Your task to perform on an android device: Go to battery settings Image 0: 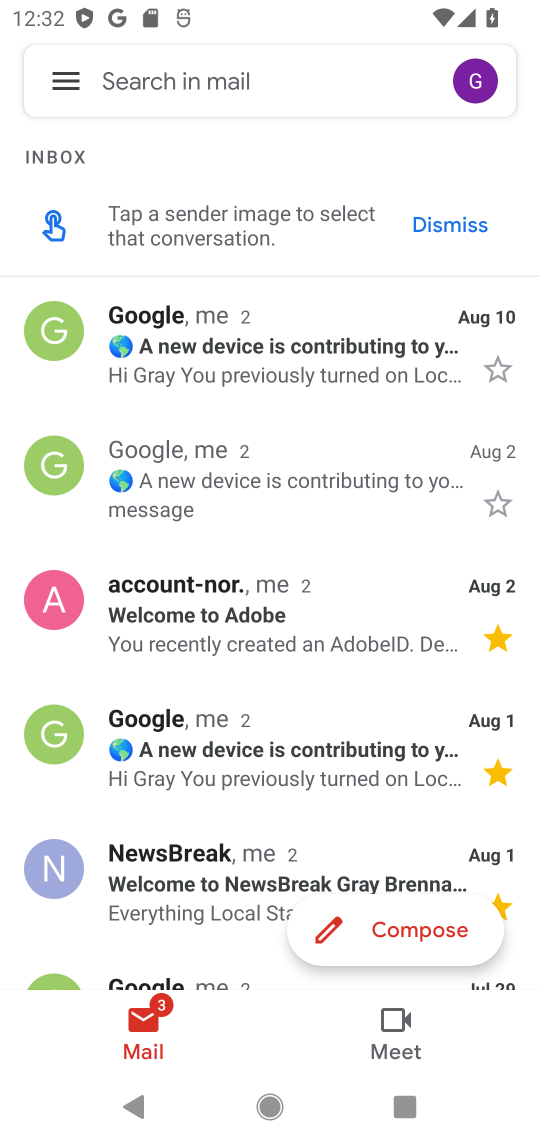
Step 0: press home button
Your task to perform on an android device: Go to battery settings Image 1: 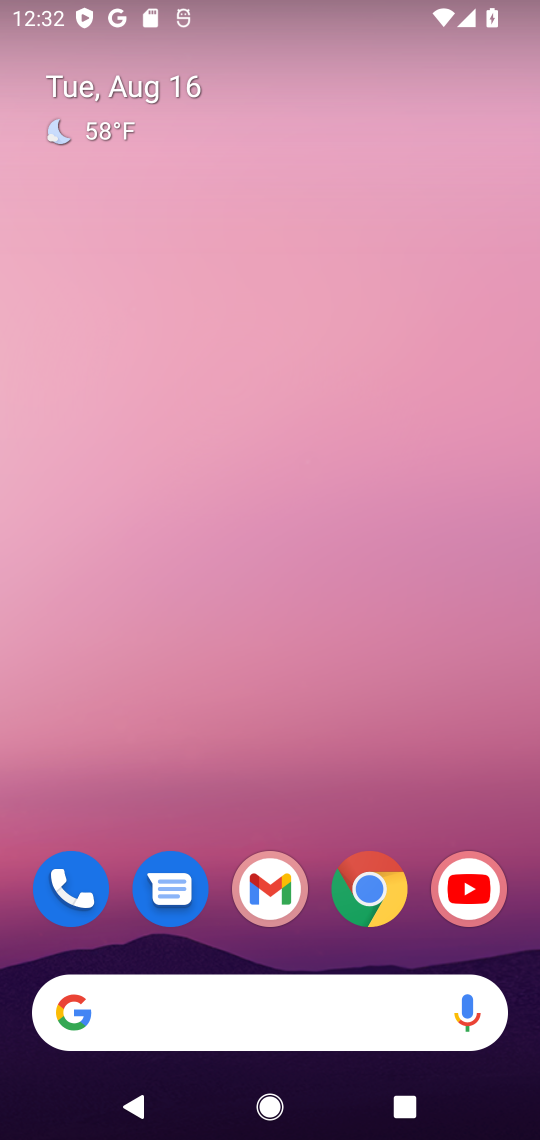
Step 1: drag from (253, 534) to (387, 3)
Your task to perform on an android device: Go to battery settings Image 2: 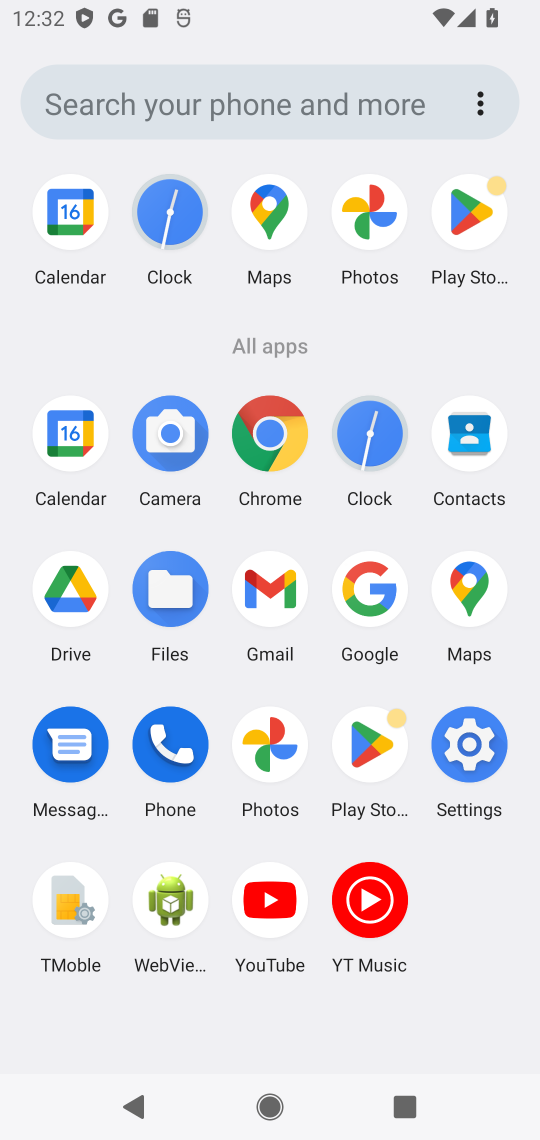
Step 2: click (477, 754)
Your task to perform on an android device: Go to battery settings Image 3: 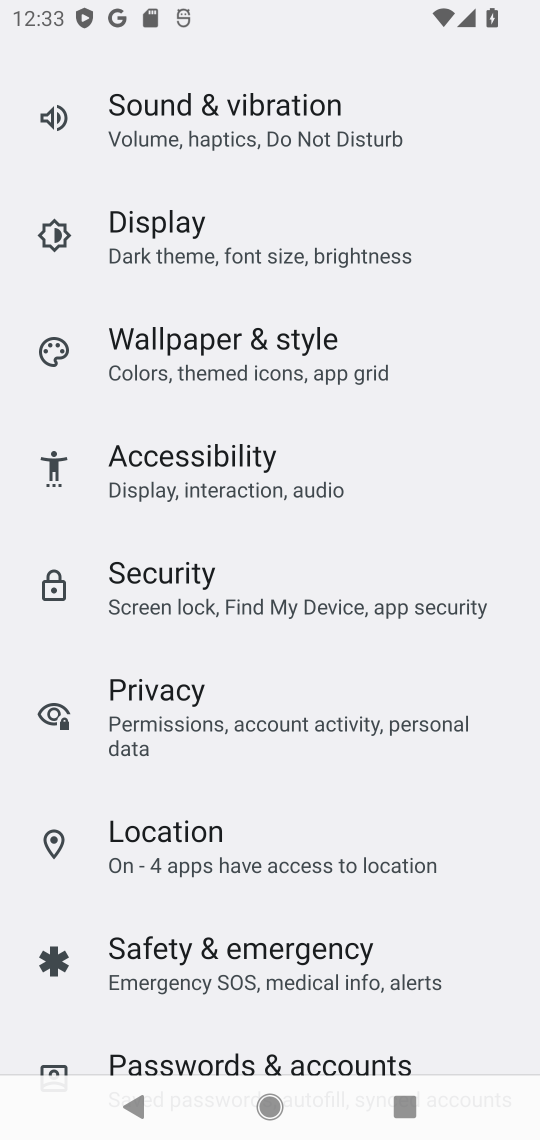
Step 3: drag from (263, 364) to (259, 1052)
Your task to perform on an android device: Go to battery settings Image 4: 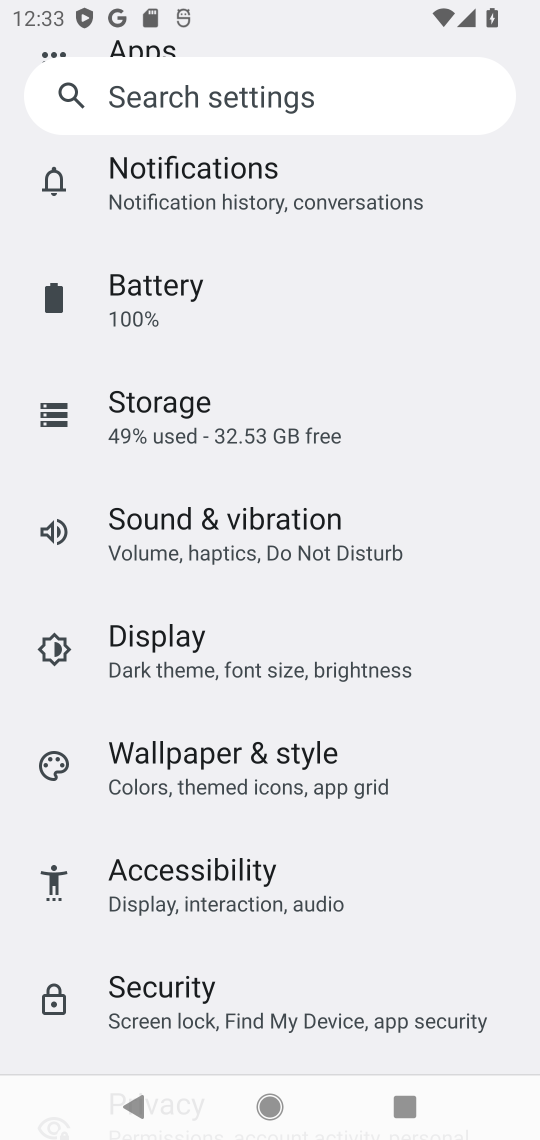
Step 4: click (204, 294)
Your task to perform on an android device: Go to battery settings Image 5: 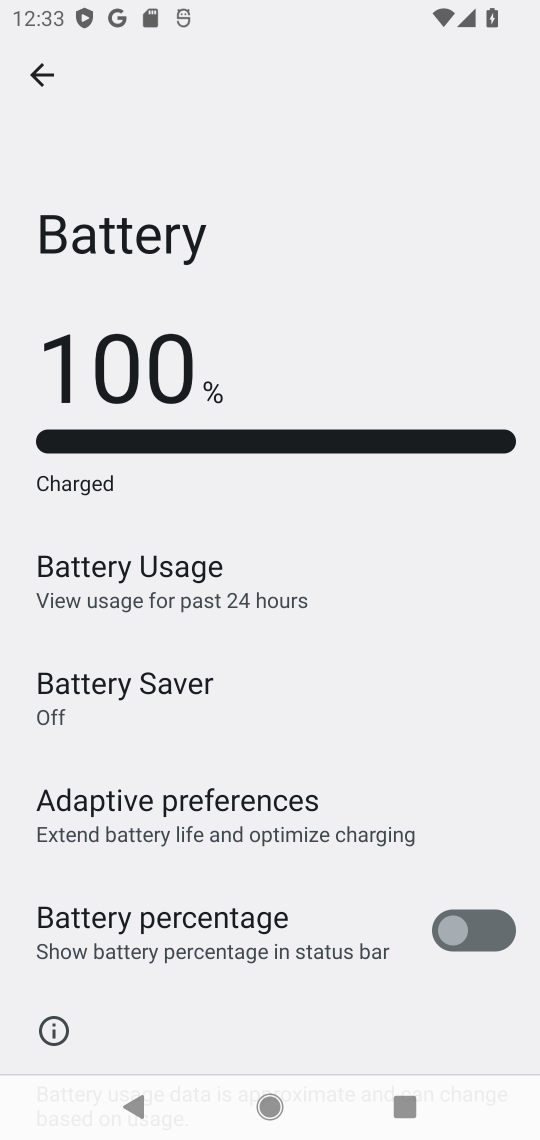
Step 5: task complete